Your task to perform on an android device: turn on location history Image 0: 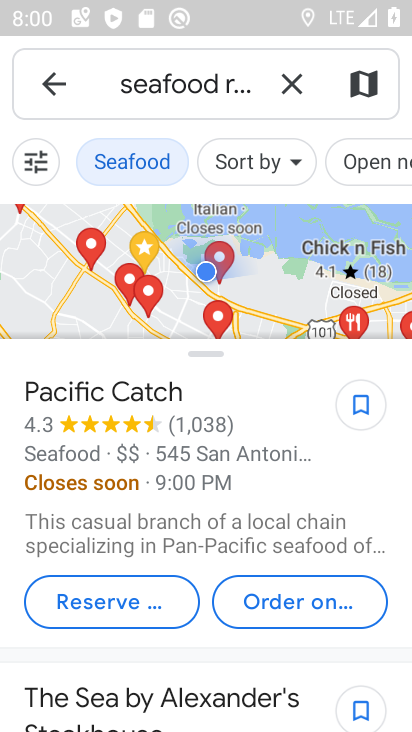
Step 0: press home button
Your task to perform on an android device: turn on location history Image 1: 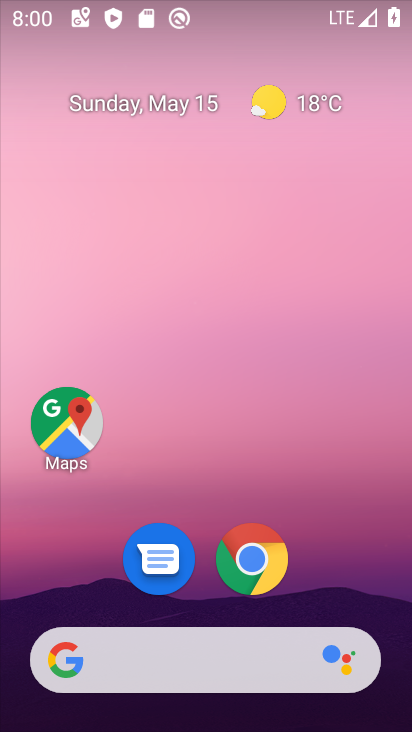
Step 1: drag from (212, 488) to (176, 93)
Your task to perform on an android device: turn on location history Image 2: 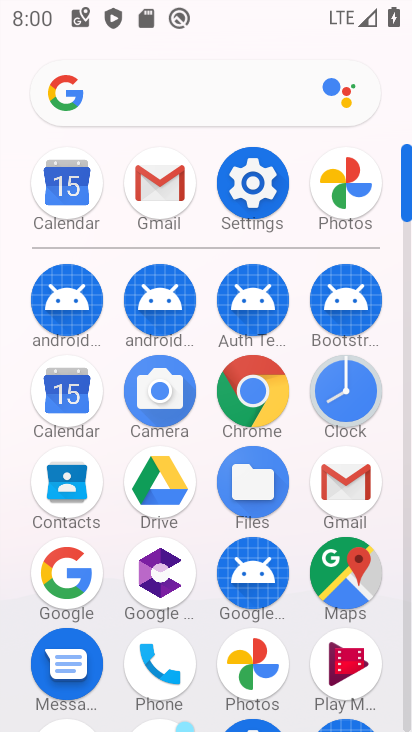
Step 2: click (257, 179)
Your task to perform on an android device: turn on location history Image 3: 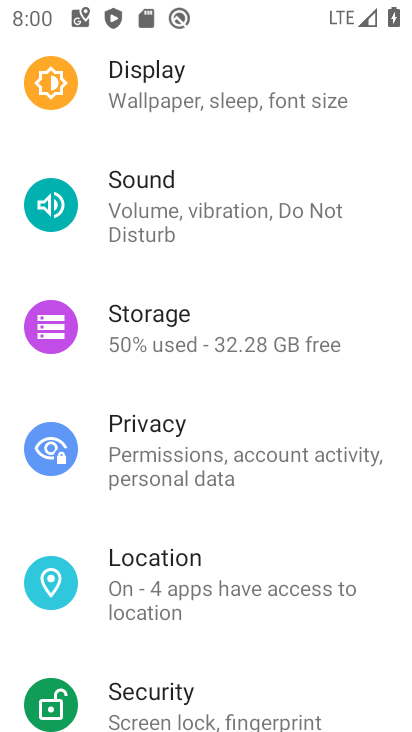
Step 3: click (137, 550)
Your task to perform on an android device: turn on location history Image 4: 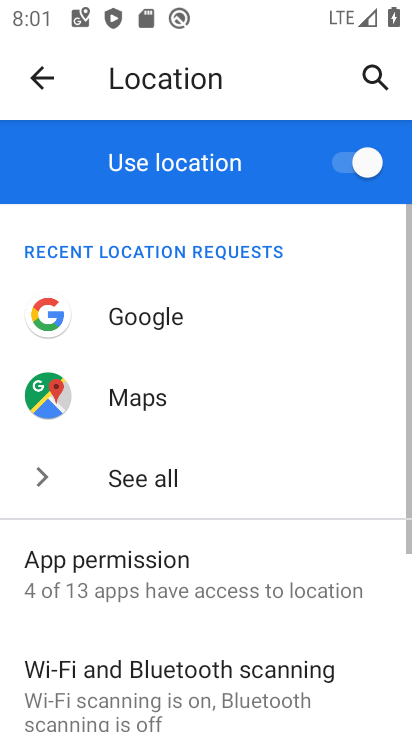
Step 4: drag from (241, 486) to (219, 284)
Your task to perform on an android device: turn on location history Image 5: 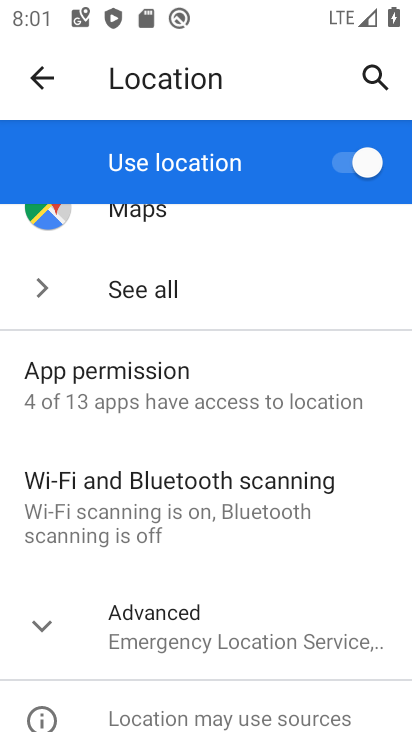
Step 5: click (59, 616)
Your task to perform on an android device: turn on location history Image 6: 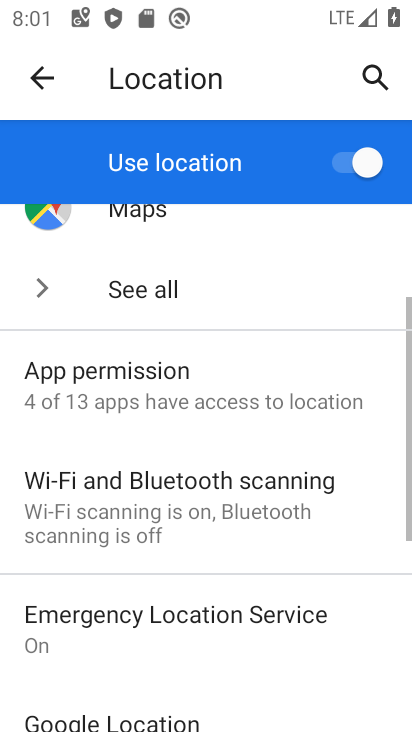
Step 6: drag from (218, 617) to (208, 326)
Your task to perform on an android device: turn on location history Image 7: 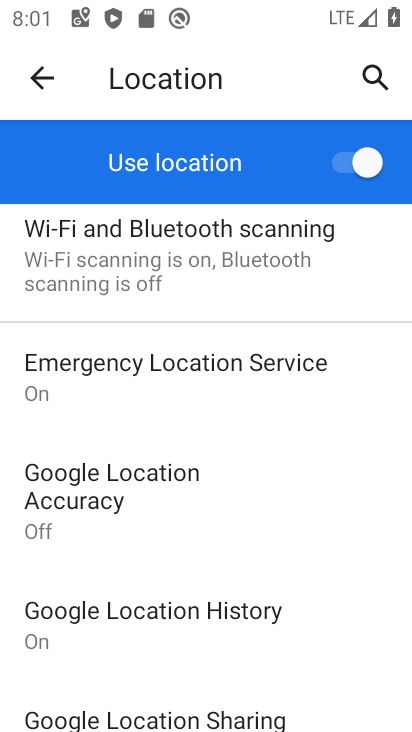
Step 7: click (100, 619)
Your task to perform on an android device: turn on location history Image 8: 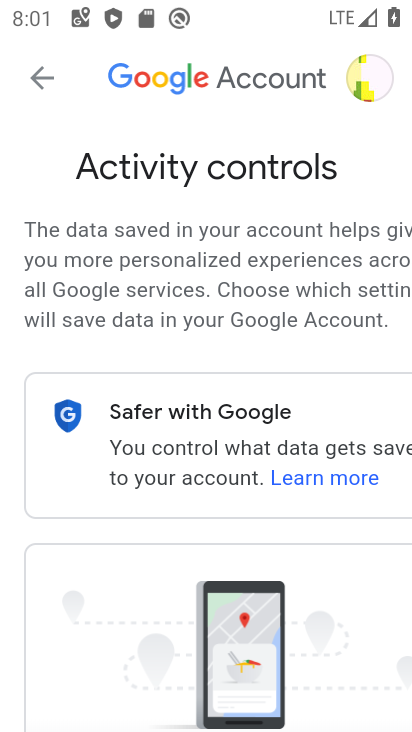
Step 8: drag from (297, 492) to (262, 147)
Your task to perform on an android device: turn on location history Image 9: 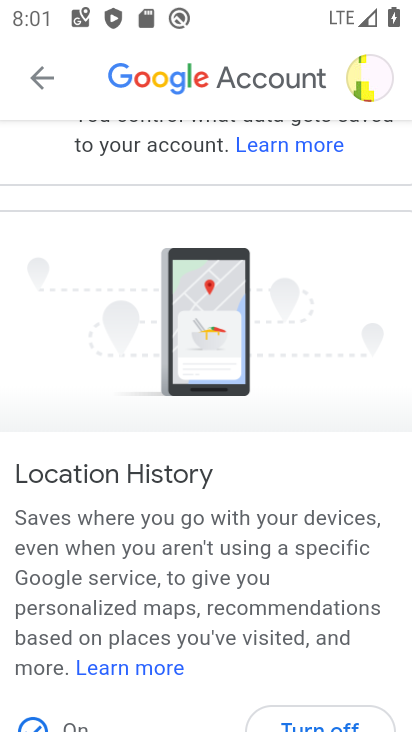
Step 9: drag from (304, 580) to (302, 308)
Your task to perform on an android device: turn on location history Image 10: 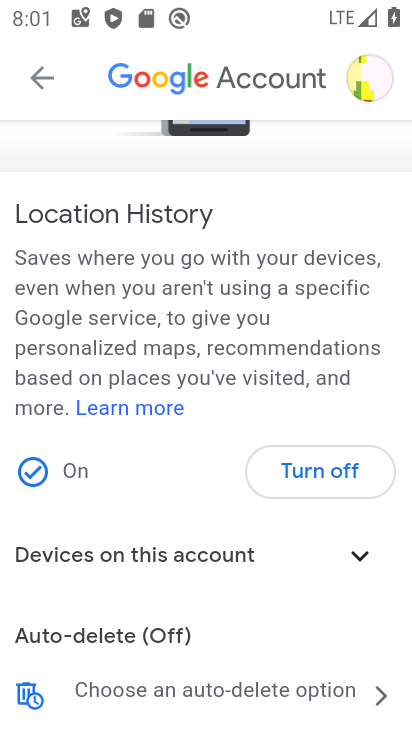
Step 10: click (314, 470)
Your task to perform on an android device: turn on location history Image 11: 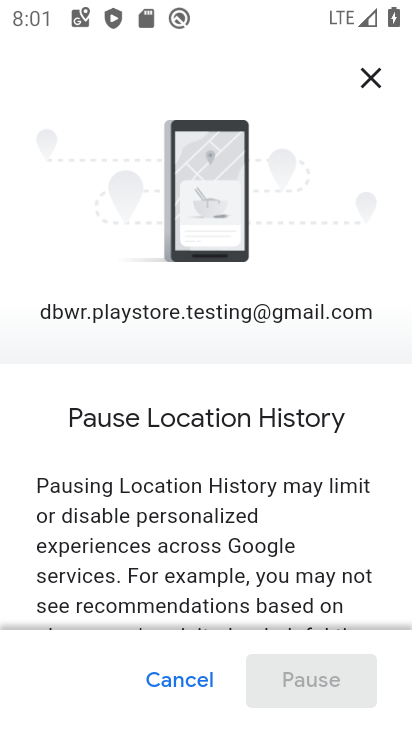
Step 11: drag from (260, 556) to (223, 255)
Your task to perform on an android device: turn on location history Image 12: 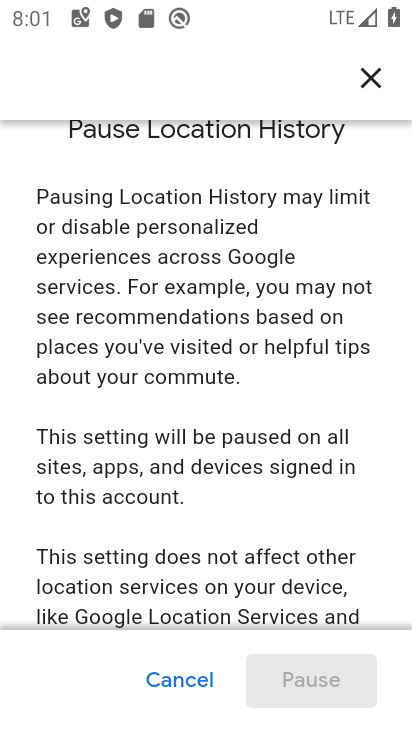
Step 12: drag from (285, 518) to (272, 241)
Your task to perform on an android device: turn on location history Image 13: 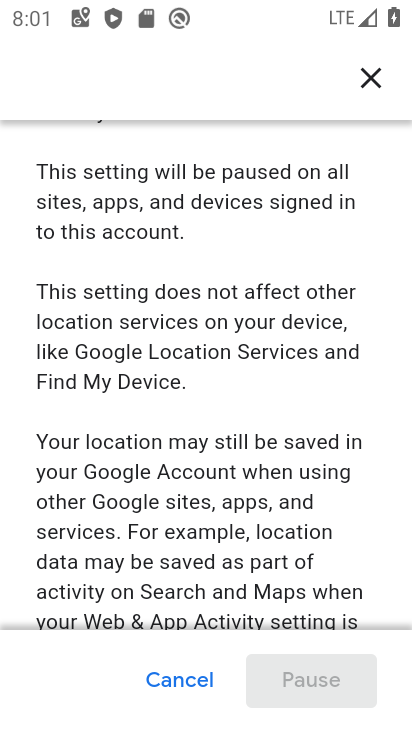
Step 13: drag from (249, 587) to (223, 187)
Your task to perform on an android device: turn on location history Image 14: 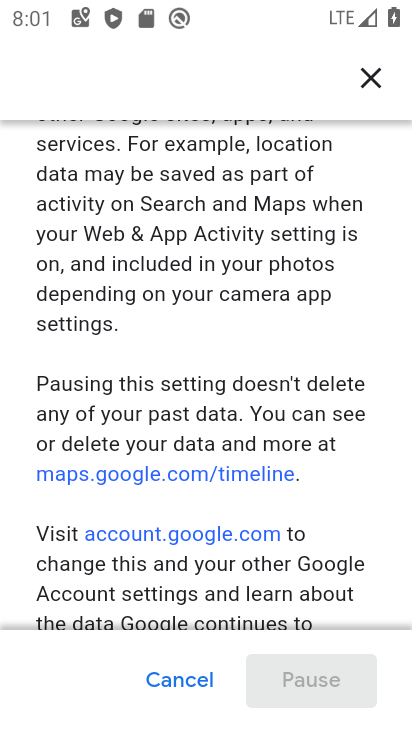
Step 14: drag from (259, 564) to (241, 139)
Your task to perform on an android device: turn on location history Image 15: 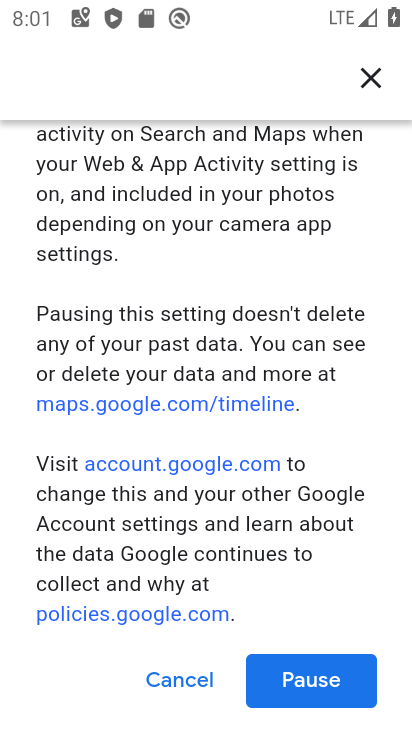
Step 15: click (308, 688)
Your task to perform on an android device: turn on location history Image 16: 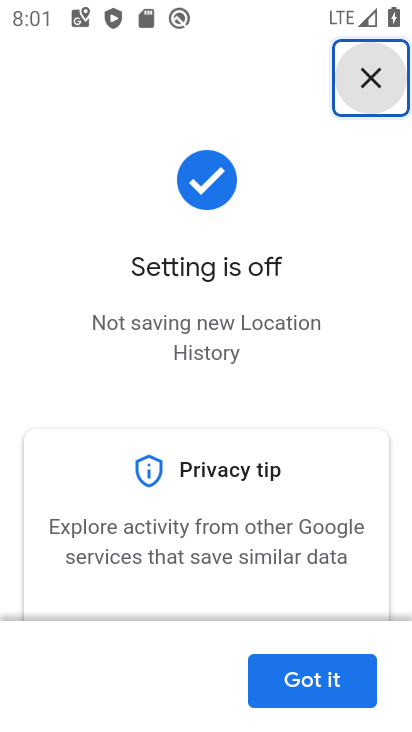
Step 16: click (282, 684)
Your task to perform on an android device: turn on location history Image 17: 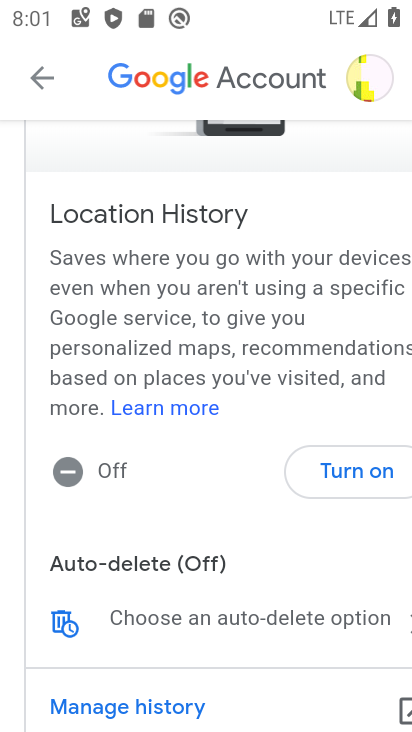
Step 17: task complete